Your task to perform on an android device: turn on wifi Image 0: 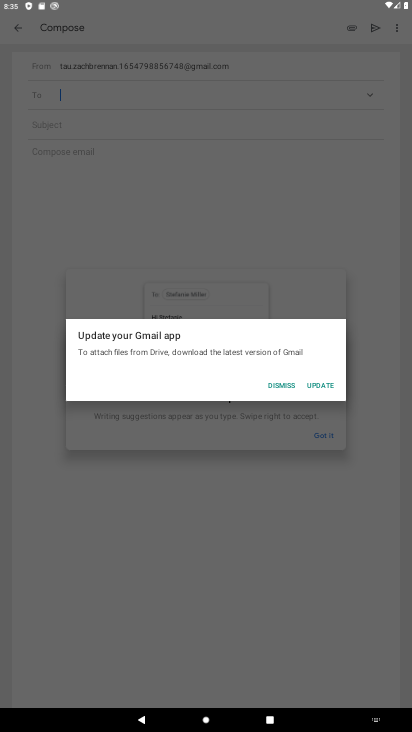
Step 0: press home button
Your task to perform on an android device: turn on wifi Image 1: 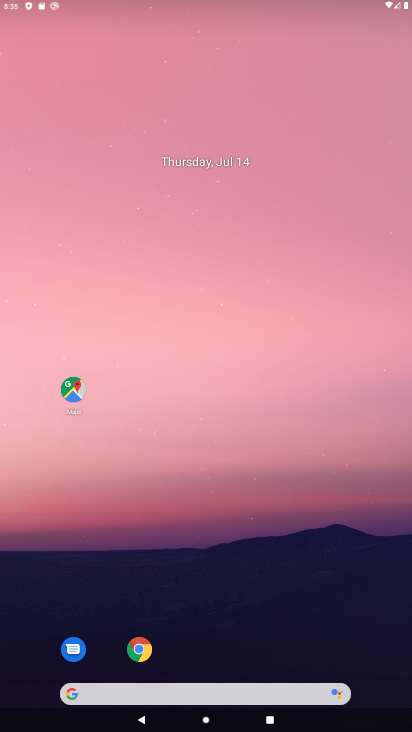
Step 1: drag from (227, 591) to (187, 70)
Your task to perform on an android device: turn on wifi Image 2: 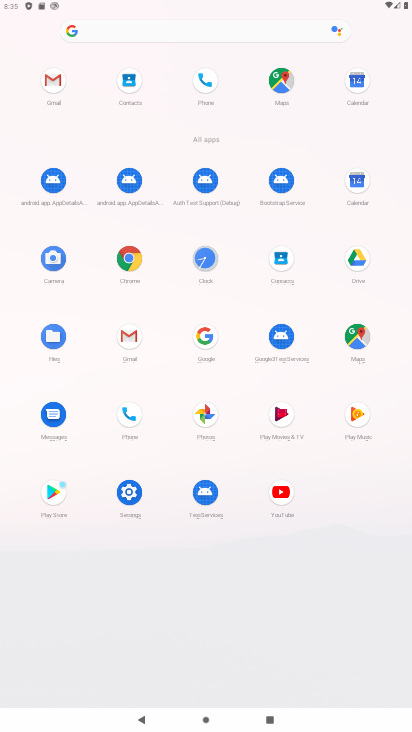
Step 2: click (130, 488)
Your task to perform on an android device: turn on wifi Image 3: 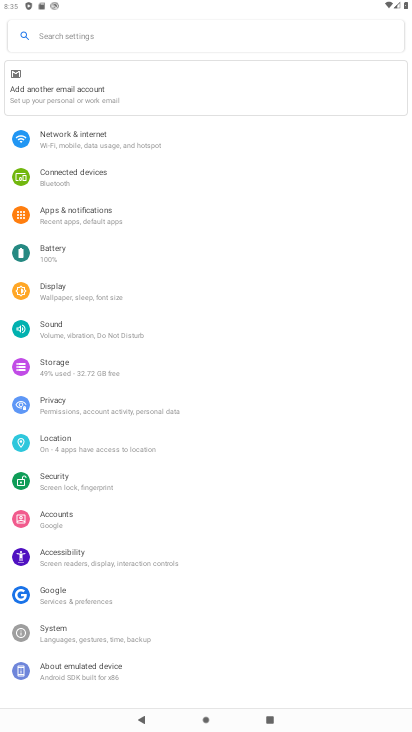
Step 3: click (87, 130)
Your task to perform on an android device: turn on wifi Image 4: 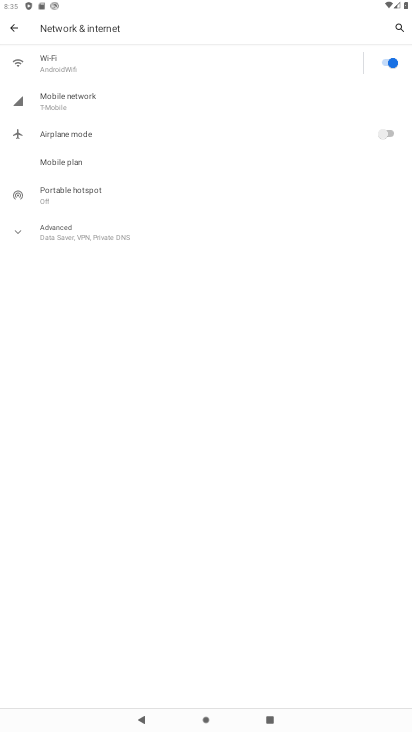
Step 4: task complete